Your task to perform on an android device: Open Amazon Image 0: 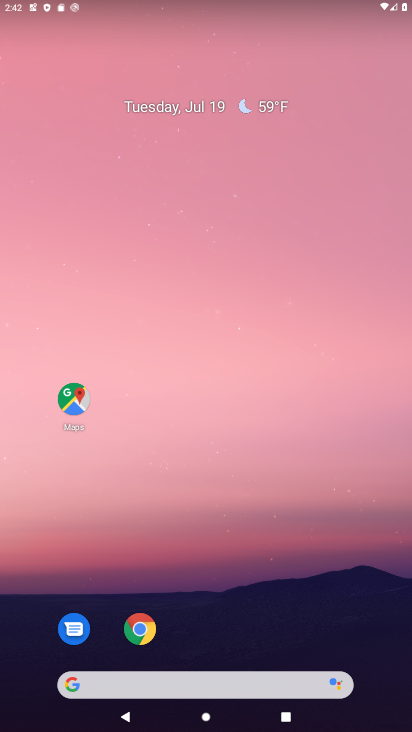
Step 0: click (154, 627)
Your task to perform on an android device: Open Amazon Image 1: 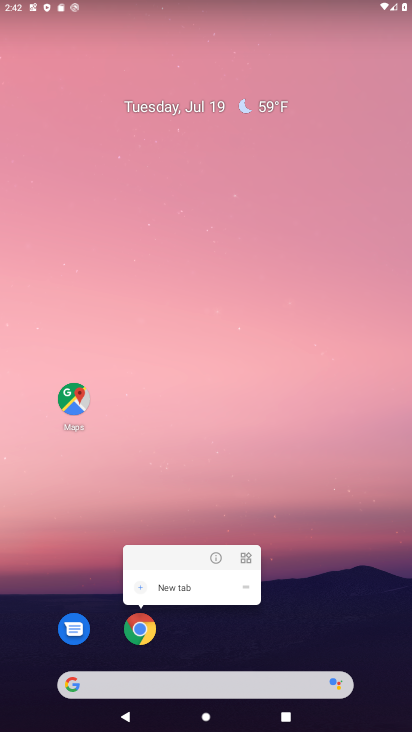
Step 1: click (134, 624)
Your task to perform on an android device: Open Amazon Image 2: 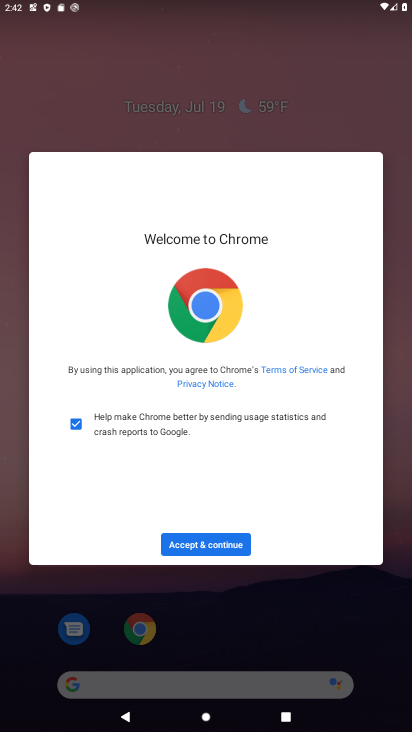
Step 2: click (242, 544)
Your task to perform on an android device: Open Amazon Image 3: 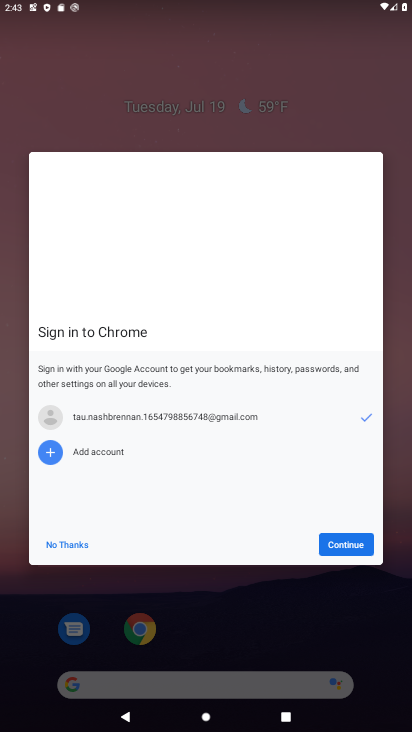
Step 3: click (364, 539)
Your task to perform on an android device: Open Amazon Image 4: 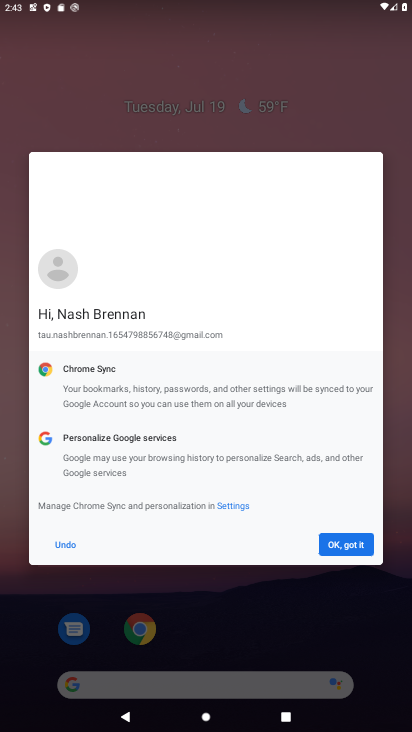
Step 4: click (364, 539)
Your task to perform on an android device: Open Amazon Image 5: 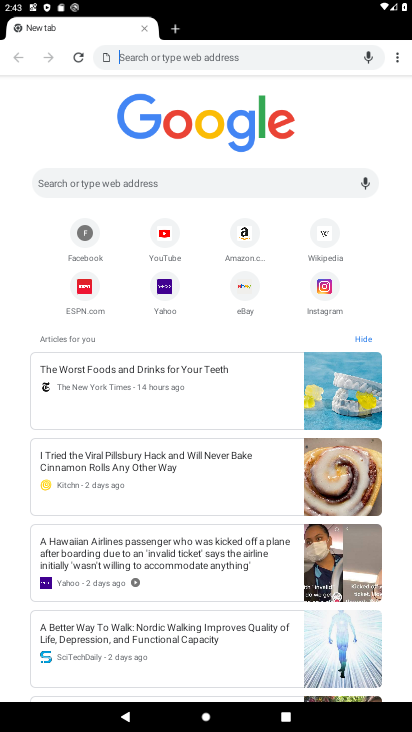
Step 5: click (243, 239)
Your task to perform on an android device: Open Amazon Image 6: 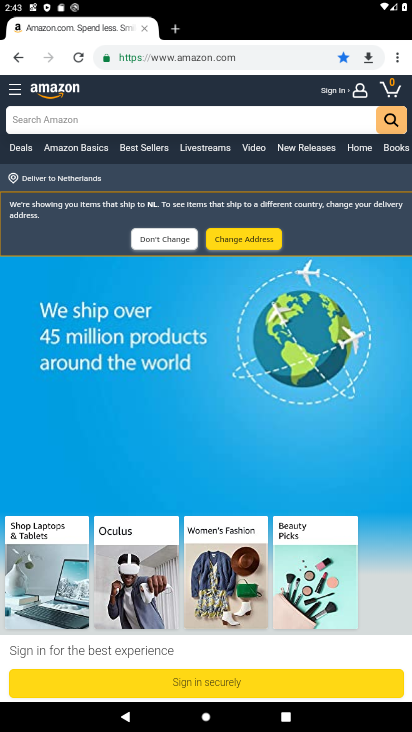
Step 6: task complete